Your task to perform on an android device: choose inbox layout in the gmail app Image 0: 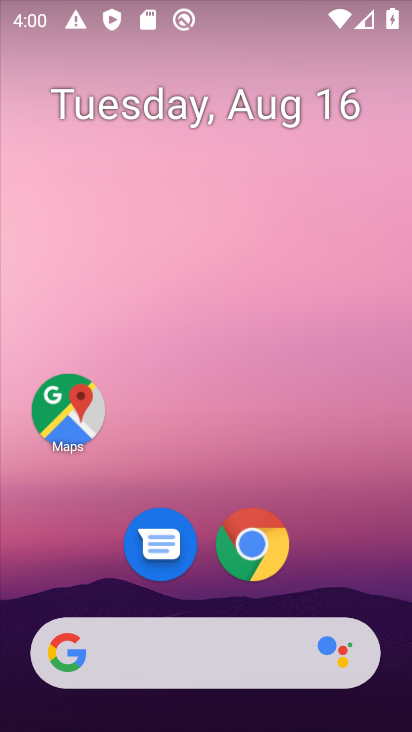
Step 0: drag from (179, 487) to (184, 89)
Your task to perform on an android device: choose inbox layout in the gmail app Image 1: 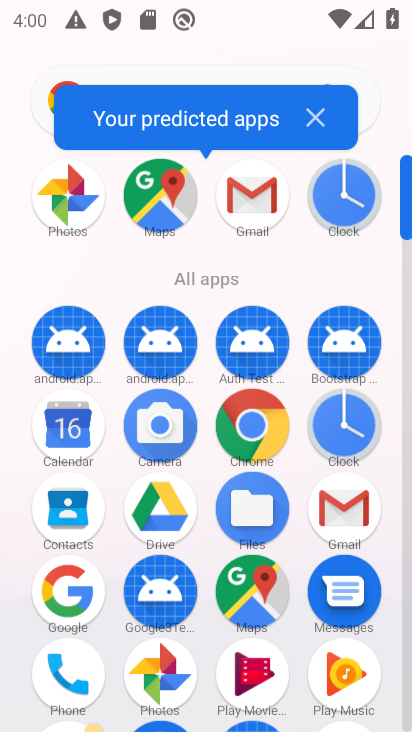
Step 1: click (231, 179)
Your task to perform on an android device: choose inbox layout in the gmail app Image 2: 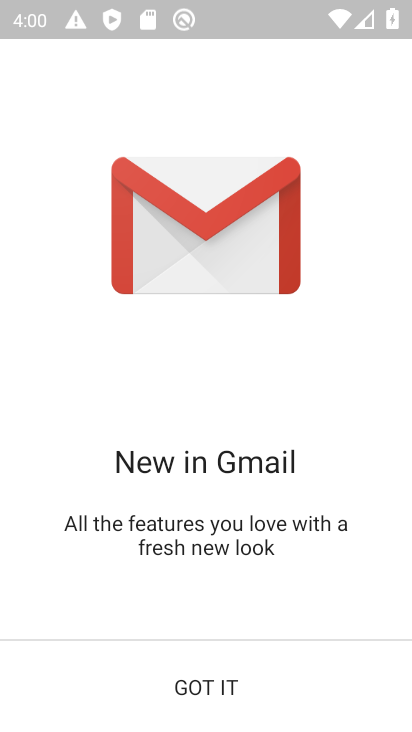
Step 2: click (265, 678)
Your task to perform on an android device: choose inbox layout in the gmail app Image 3: 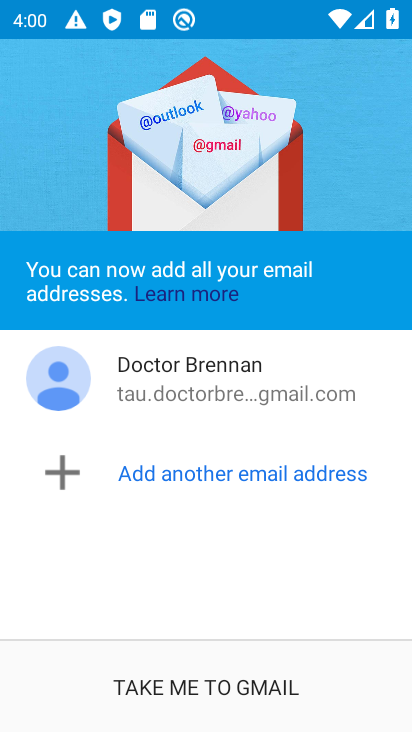
Step 3: click (263, 679)
Your task to perform on an android device: choose inbox layout in the gmail app Image 4: 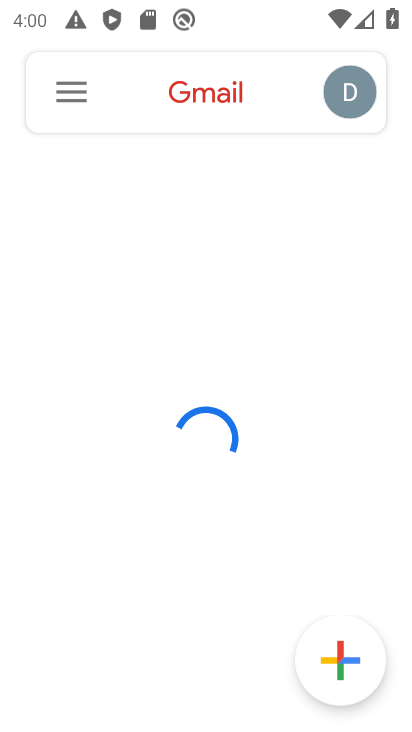
Step 4: click (53, 91)
Your task to perform on an android device: choose inbox layout in the gmail app Image 5: 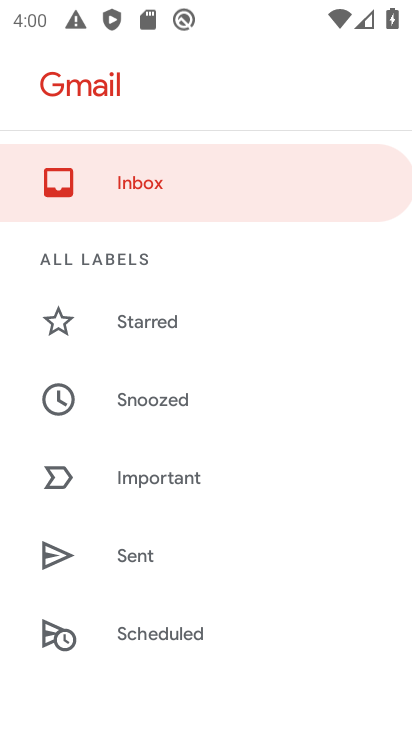
Step 5: drag from (180, 613) to (187, 173)
Your task to perform on an android device: choose inbox layout in the gmail app Image 6: 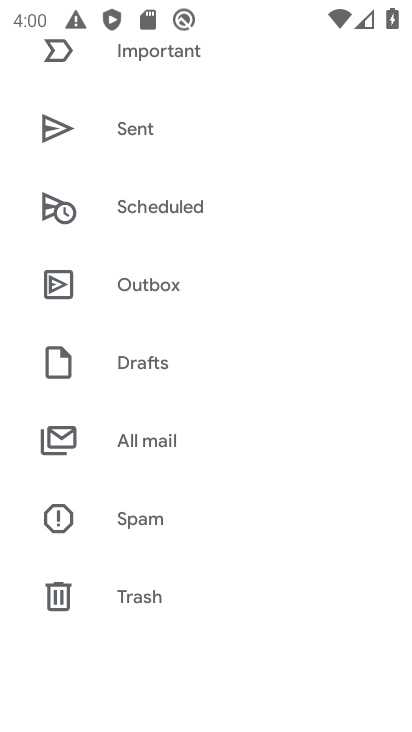
Step 6: drag from (182, 561) to (169, 124)
Your task to perform on an android device: choose inbox layout in the gmail app Image 7: 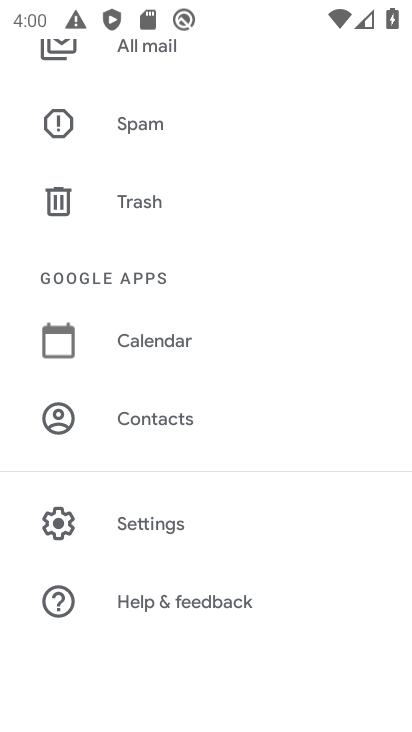
Step 7: click (165, 533)
Your task to perform on an android device: choose inbox layout in the gmail app Image 8: 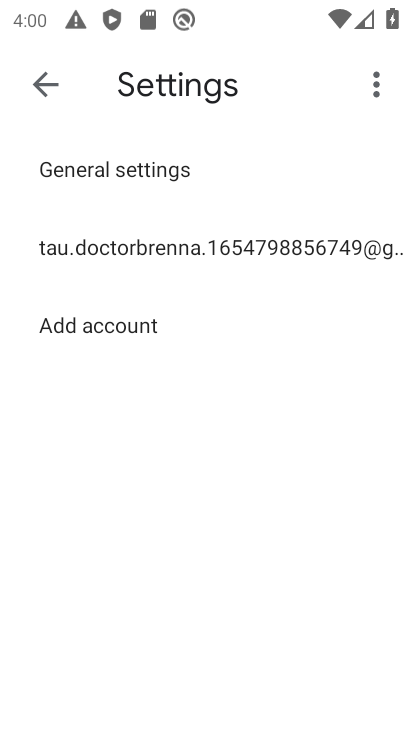
Step 8: click (106, 258)
Your task to perform on an android device: choose inbox layout in the gmail app Image 9: 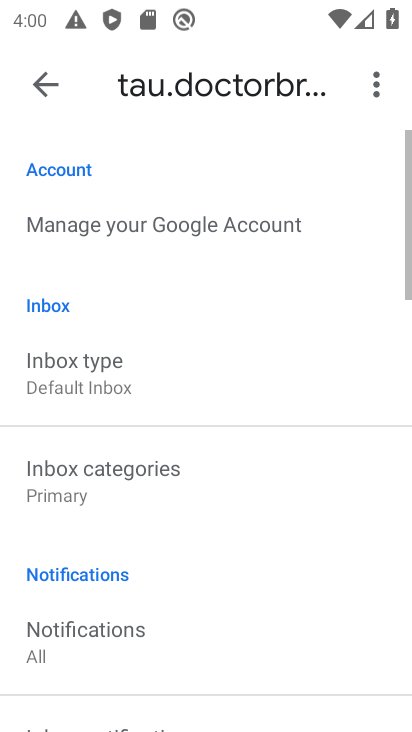
Step 9: click (117, 367)
Your task to perform on an android device: choose inbox layout in the gmail app Image 10: 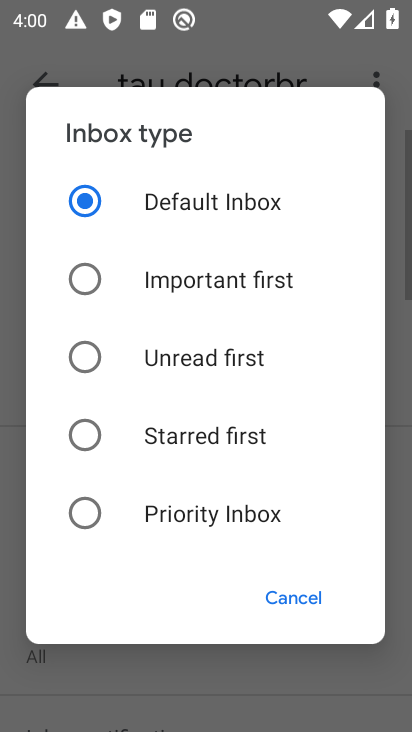
Step 10: click (128, 507)
Your task to perform on an android device: choose inbox layout in the gmail app Image 11: 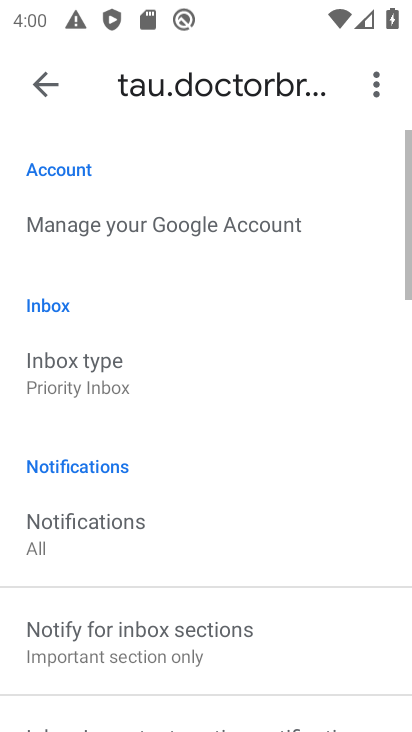
Step 11: task complete